Your task to perform on an android device: open a new tab in the chrome app Image 0: 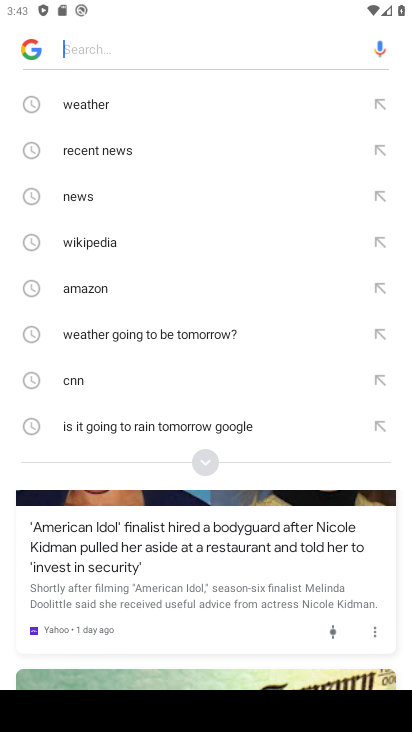
Step 0: press home button
Your task to perform on an android device: open a new tab in the chrome app Image 1: 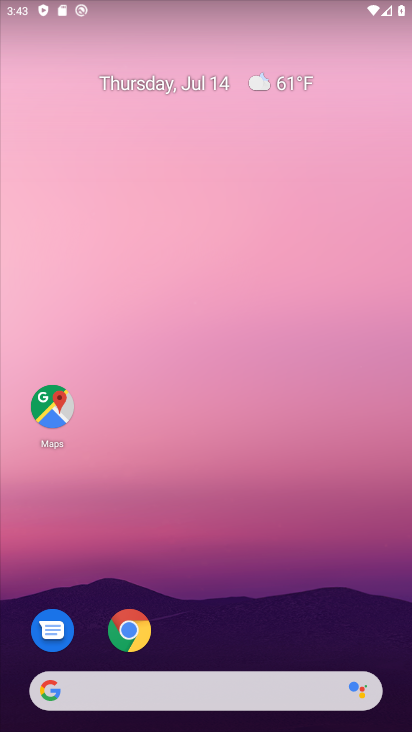
Step 1: click (132, 634)
Your task to perform on an android device: open a new tab in the chrome app Image 2: 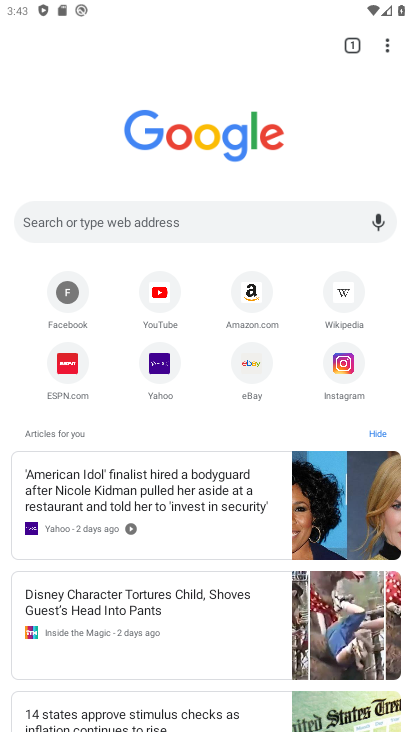
Step 2: click (391, 52)
Your task to perform on an android device: open a new tab in the chrome app Image 3: 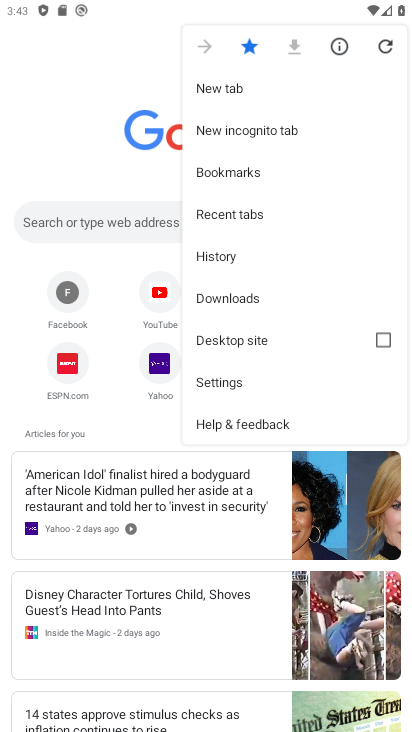
Step 3: click (273, 83)
Your task to perform on an android device: open a new tab in the chrome app Image 4: 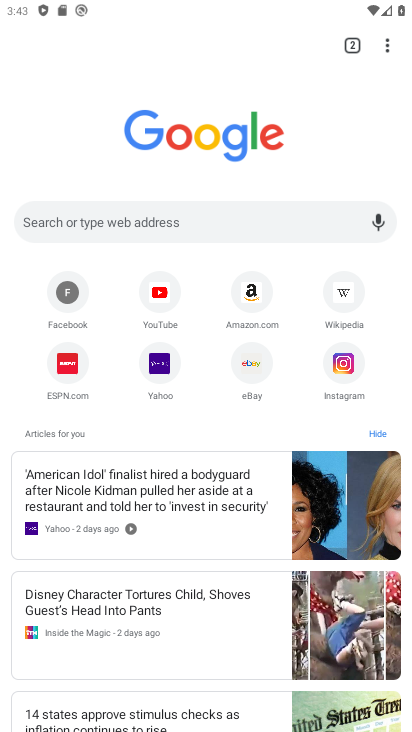
Step 4: task complete